Your task to perform on an android device: turn on showing notifications on the lock screen Image 0: 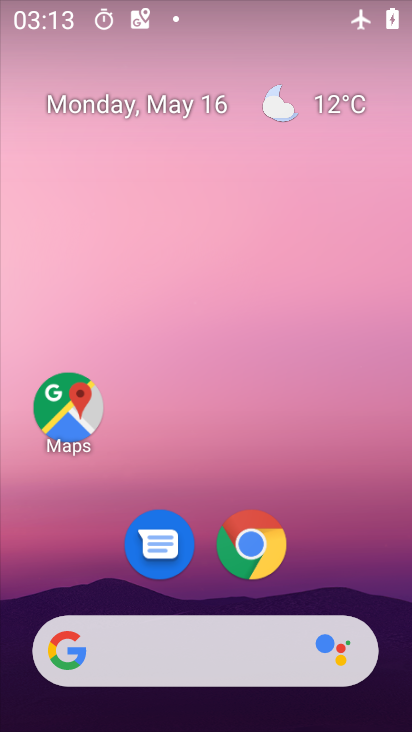
Step 0: drag from (209, 723) to (232, 211)
Your task to perform on an android device: turn on showing notifications on the lock screen Image 1: 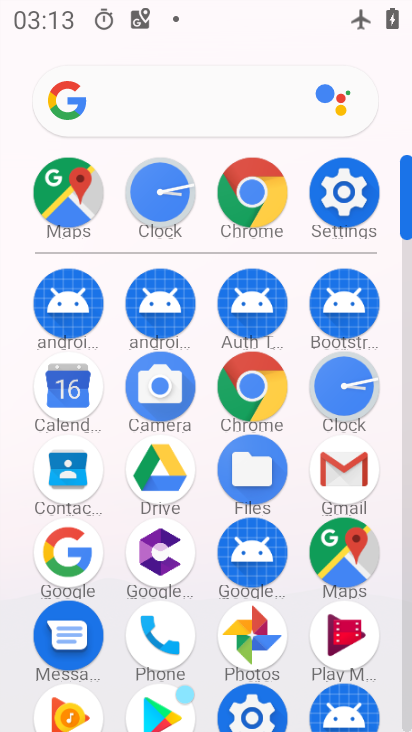
Step 1: click (354, 192)
Your task to perform on an android device: turn on showing notifications on the lock screen Image 2: 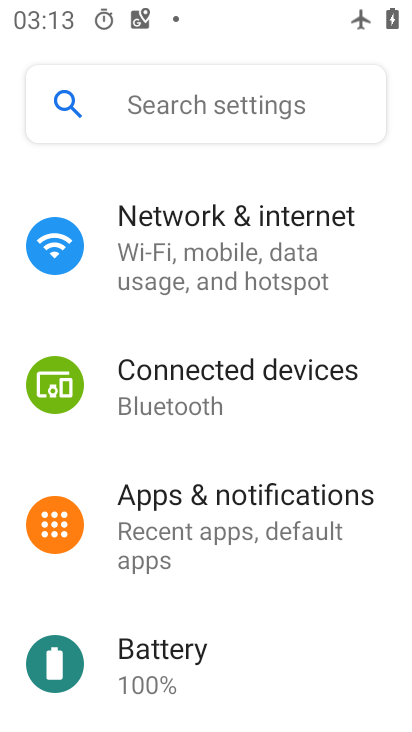
Step 2: click (219, 518)
Your task to perform on an android device: turn on showing notifications on the lock screen Image 3: 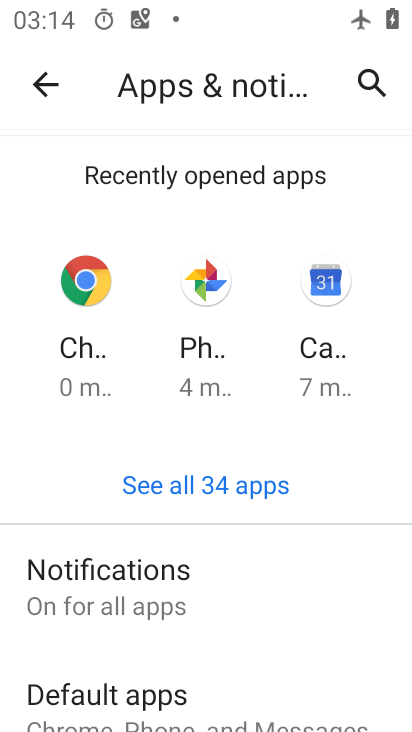
Step 3: drag from (209, 657) to (196, 402)
Your task to perform on an android device: turn on showing notifications on the lock screen Image 4: 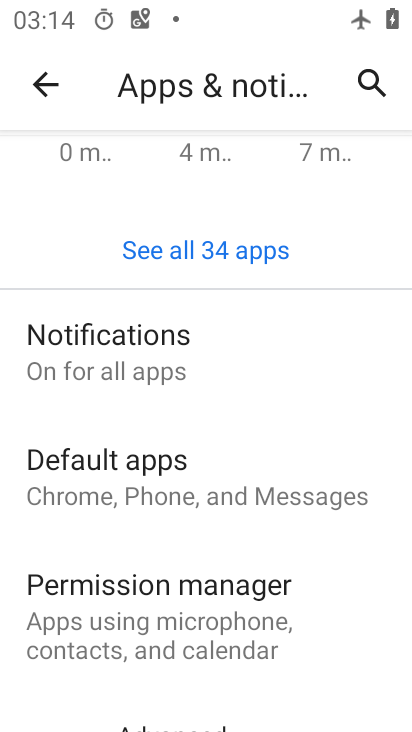
Step 4: click (92, 344)
Your task to perform on an android device: turn on showing notifications on the lock screen Image 5: 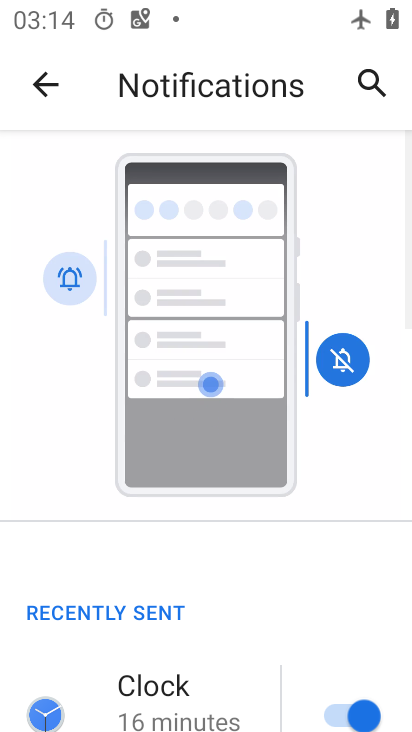
Step 5: task complete